Your task to perform on an android device: Open ESPN.com Image 0: 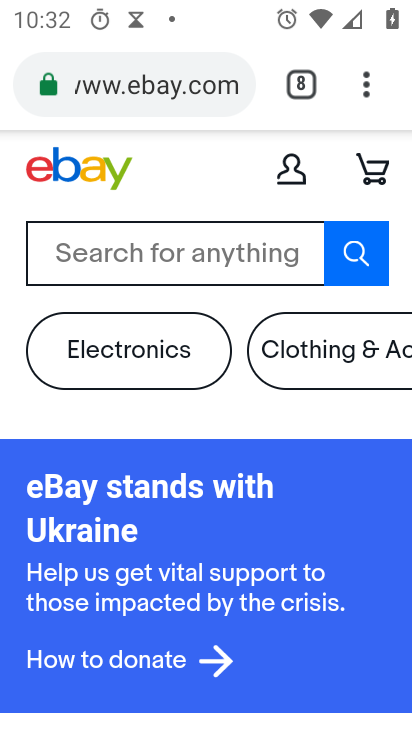
Step 0: press home button
Your task to perform on an android device: Open ESPN.com Image 1: 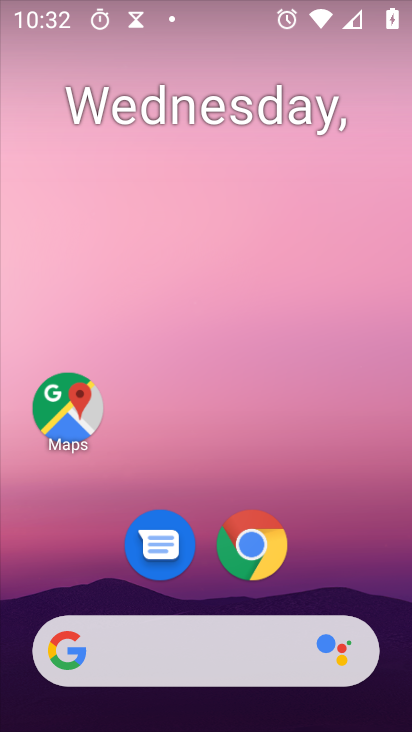
Step 1: click (243, 548)
Your task to perform on an android device: Open ESPN.com Image 2: 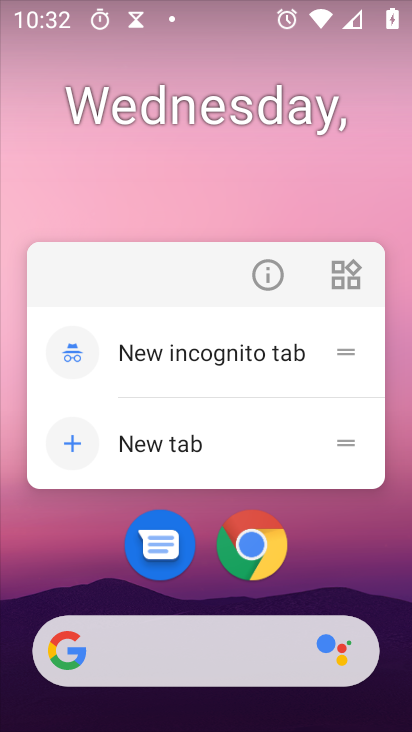
Step 2: click (263, 550)
Your task to perform on an android device: Open ESPN.com Image 3: 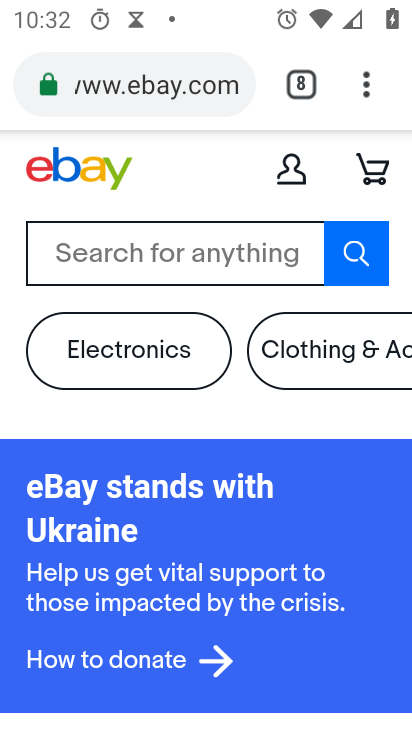
Step 3: drag from (368, 79) to (177, 176)
Your task to perform on an android device: Open ESPN.com Image 4: 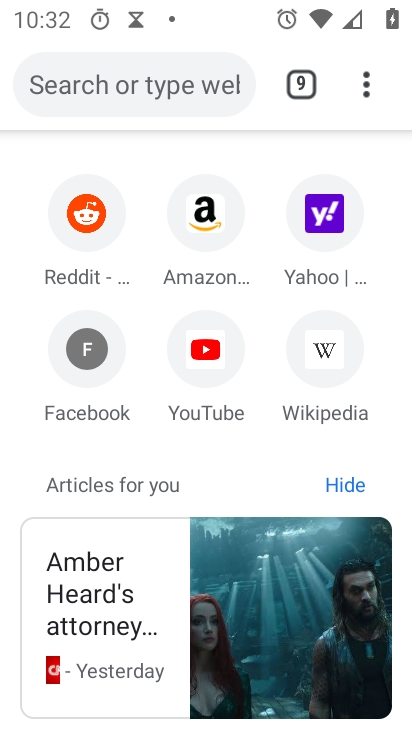
Step 4: drag from (367, 314) to (109, 332)
Your task to perform on an android device: Open ESPN.com Image 5: 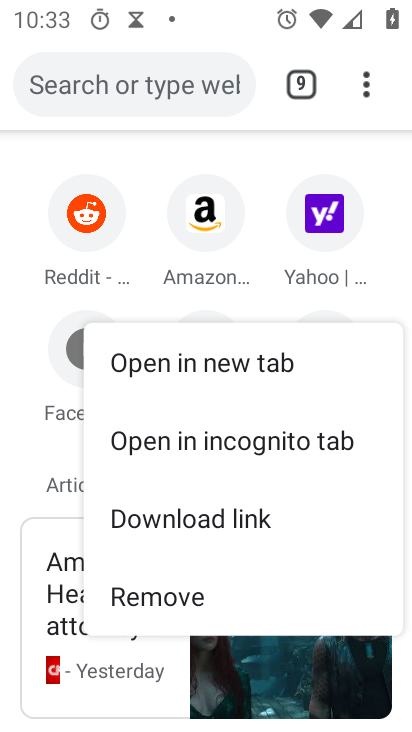
Step 5: click (118, 78)
Your task to perform on an android device: Open ESPN.com Image 6: 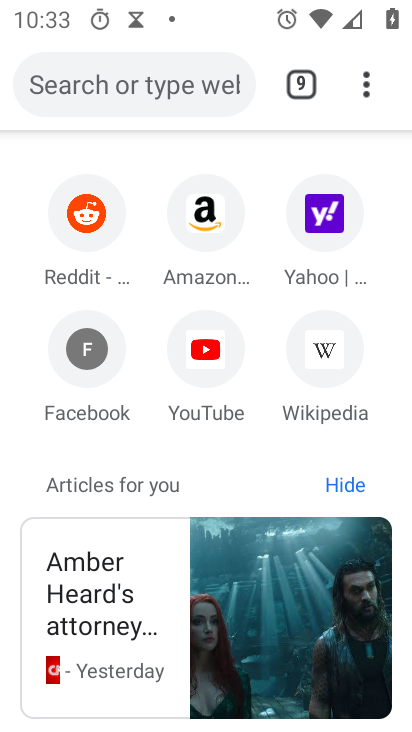
Step 6: click (62, 84)
Your task to perform on an android device: Open ESPN.com Image 7: 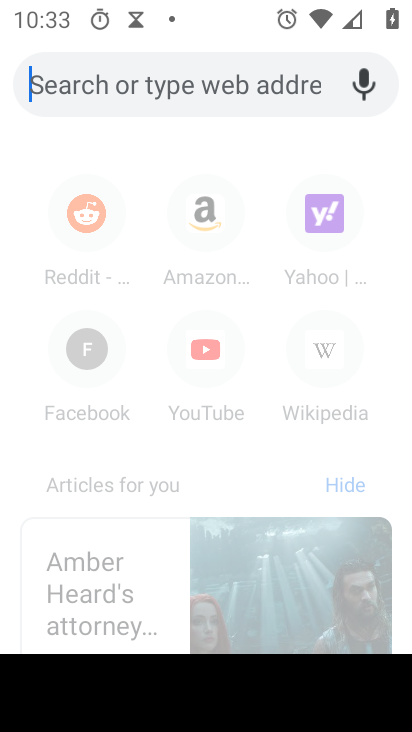
Step 7: type "espn.com"
Your task to perform on an android device: Open ESPN.com Image 8: 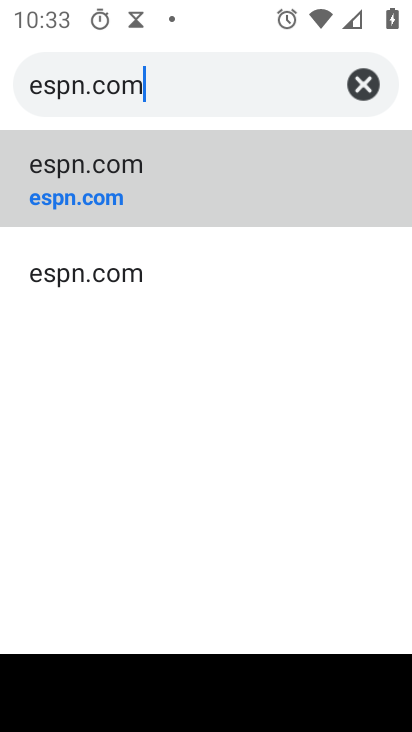
Step 8: click (115, 187)
Your task to perform on an android device: Open ESPN.com Image 9: 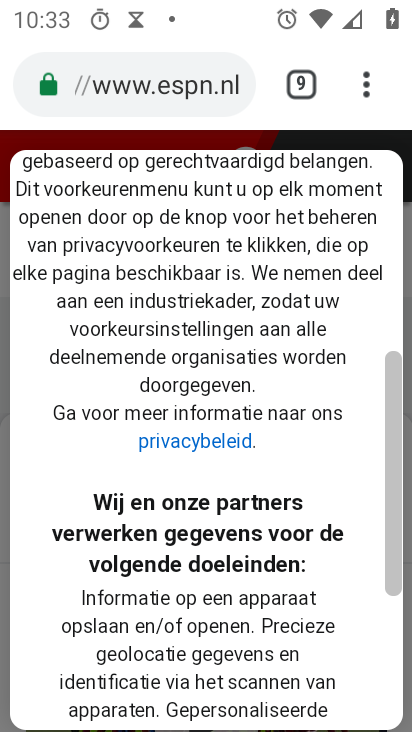
Step 9: drag from (194, 662) to (367, 122)
Your task to perform on an android device: Open ESPN.com Image 10: 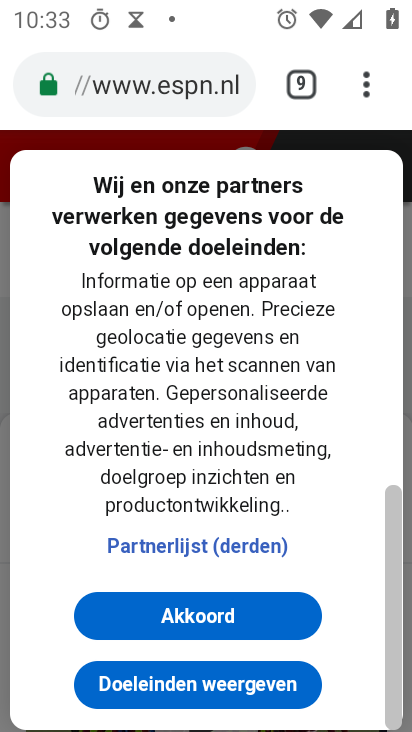
Step 10: click (192, 615)
Your task to perform on an android device: Open ESPN.com Image 11: 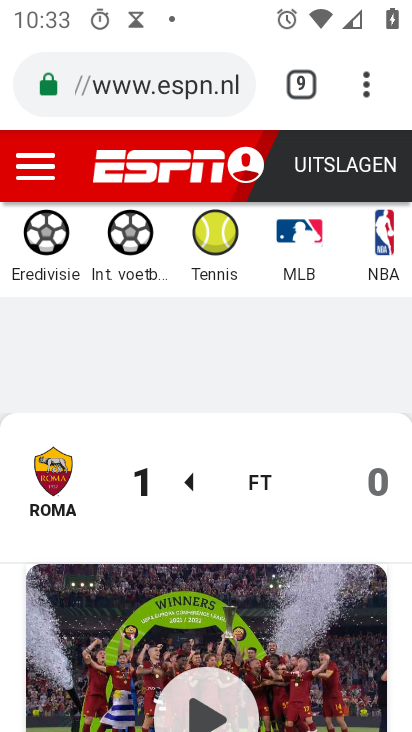
Step 11: task complete